Your task to perform on an android device: Turn off the flashlight Image 0: 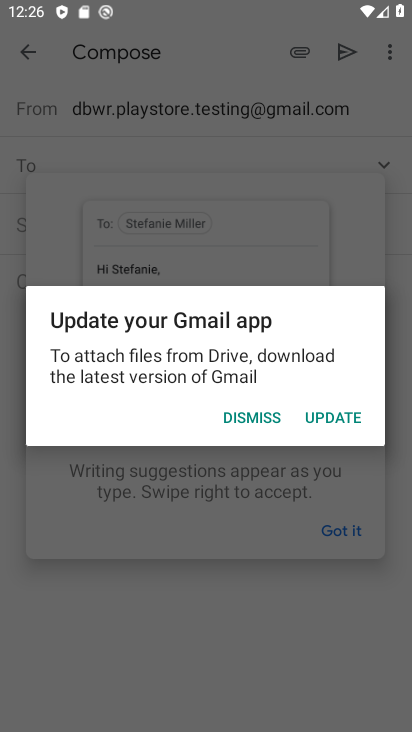
Step 0: press home button
Your task to perform on an android device: Turn off the flashlight Image 1: 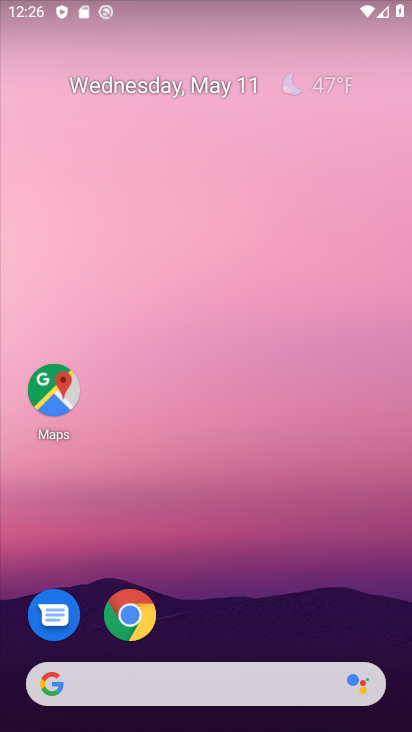
Step 1: drag from (308, 598) to (253, 164)
Your task to perform on an android device: Turn off the flashlight Image 2: 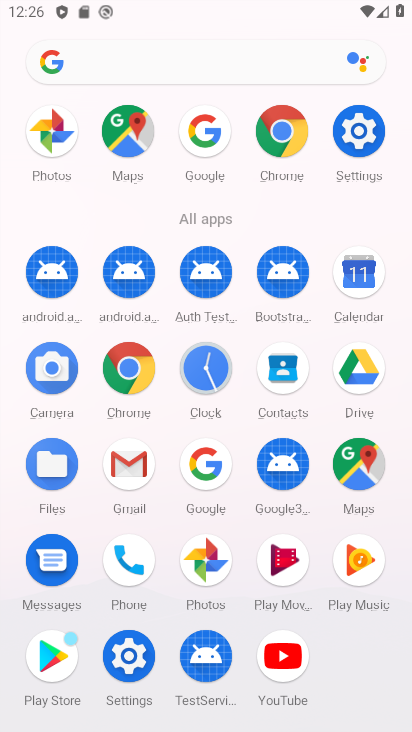
Step 2: click (362, 125)
Your task to perform on an android device: Turn off the flashlight Image 3: 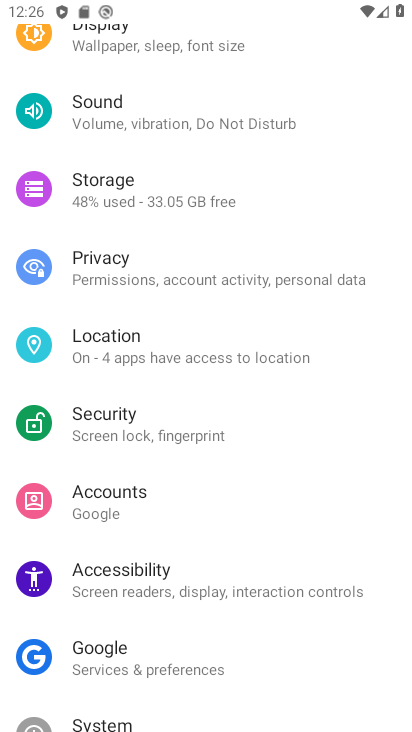
Step 3: task complete